Your task to perform on an android device: set an alarm Image 0: 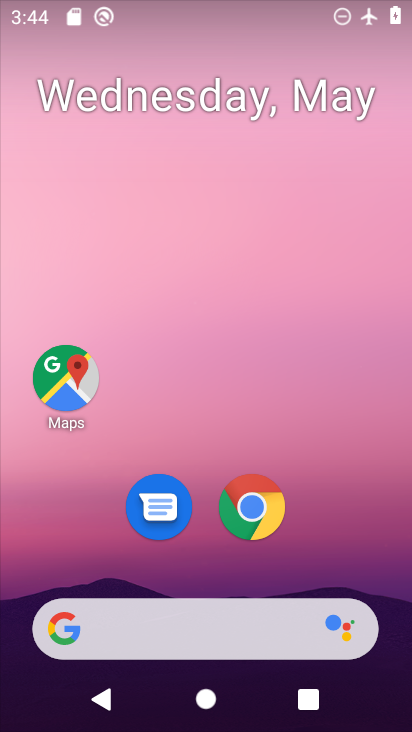
Step 0: drag from (310, 598) to (284, 100)
Your task to perform on an android device: set an alarm Image 1: 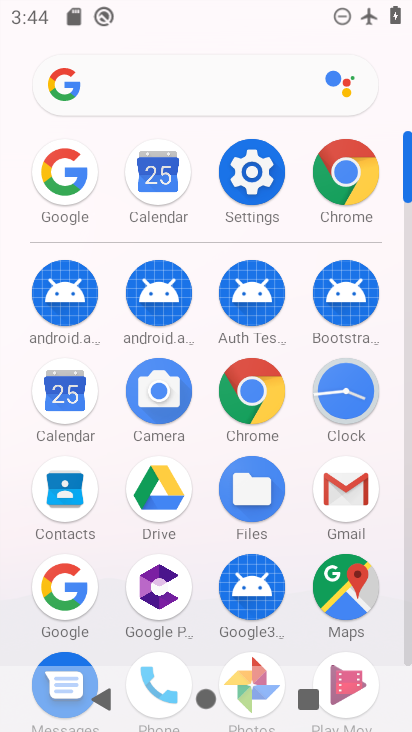
Step 1: click (338, 404)
Your task to perform on an android device: set an alarm Image 2: 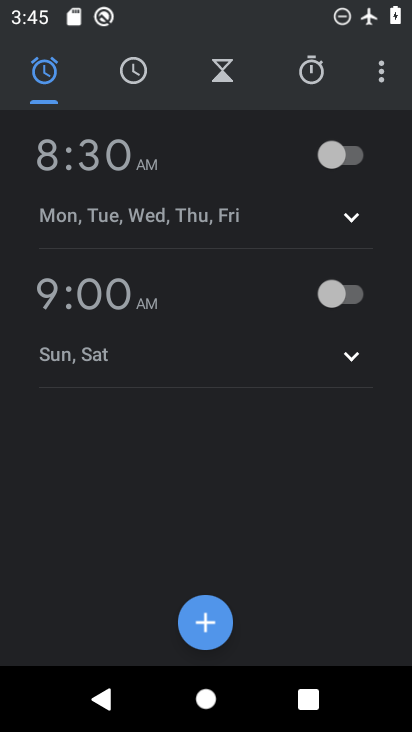
Step 2: click (218, 633)
Your task to perform on an android device: set an alarm Image 3: 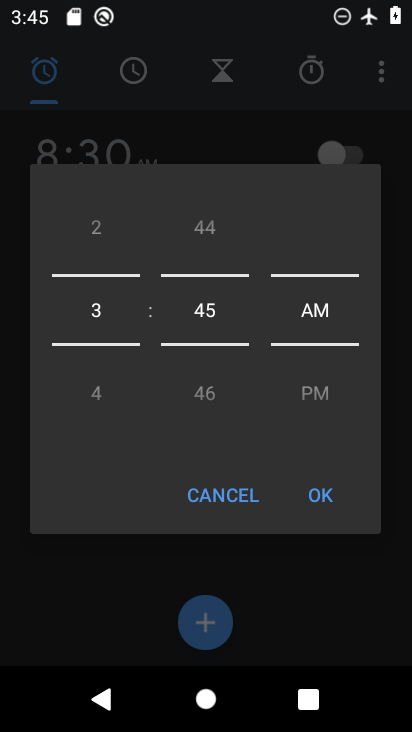
Step 3: click (333, 504)
Your task to perform on an android device: set an alarm Image 4: 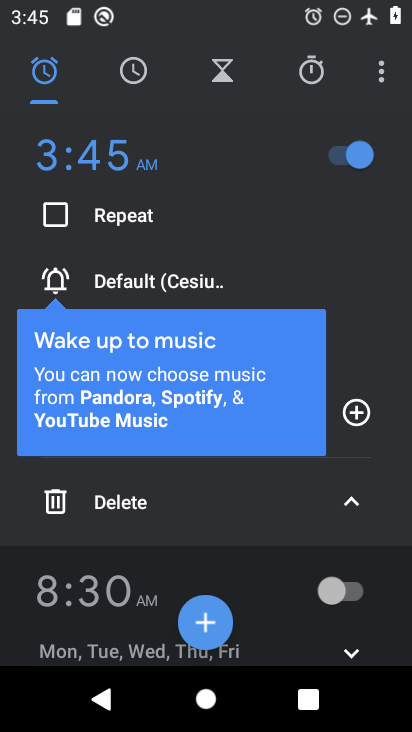
Step 4: task complete